Your task to perform on an android device: Open the phone app and click the voicemail tab. Image 0: 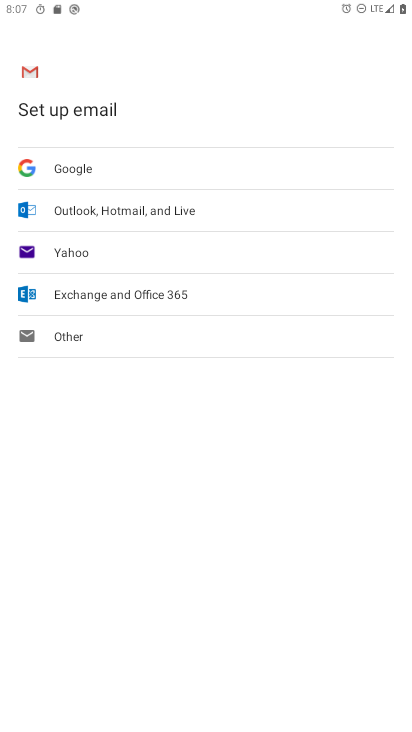
Step 0: press home button
Your task to perform on an android device: Open the phone app and click the voicemail tab. Image 1: 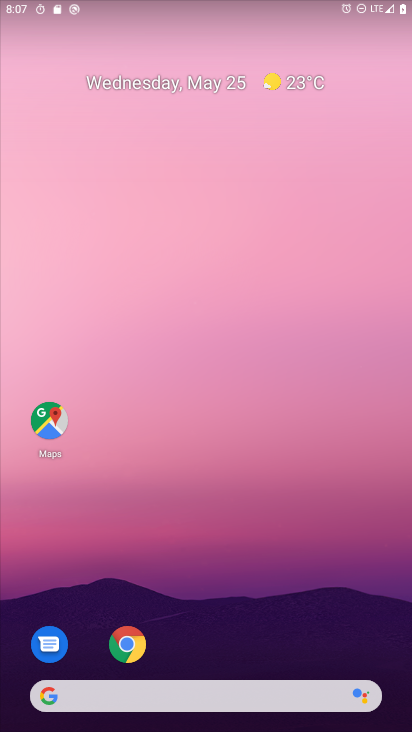
Step 1: drag from (326, 650) to (244, 65)
Your task to perform on an android device: Open the phone app and click the voicemail tab. Image 2: 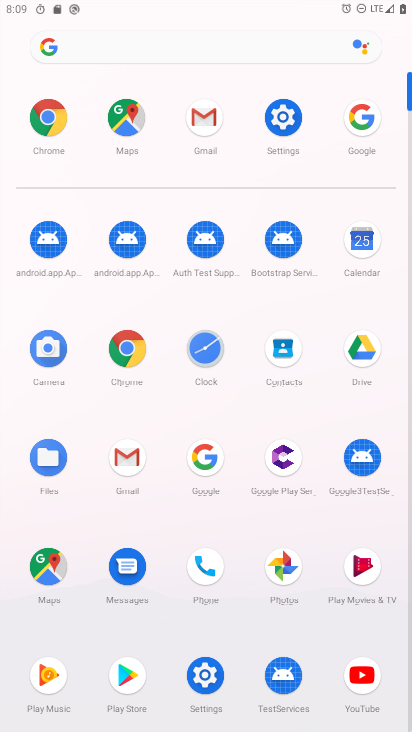
Step 2: click (208, 583)
Your task to perform on an android device: Open the phone app and click the voicemail tab. Image 3: 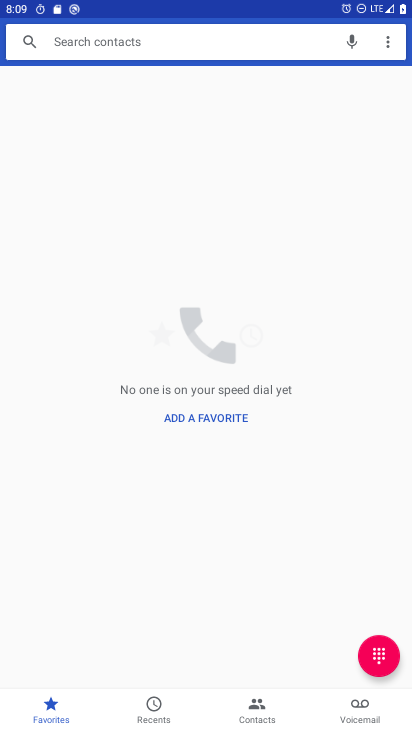
Step 3: click (362, 705)
Your task to perform on an android device: Open the phone app and click the voicemail tab. Image 4: 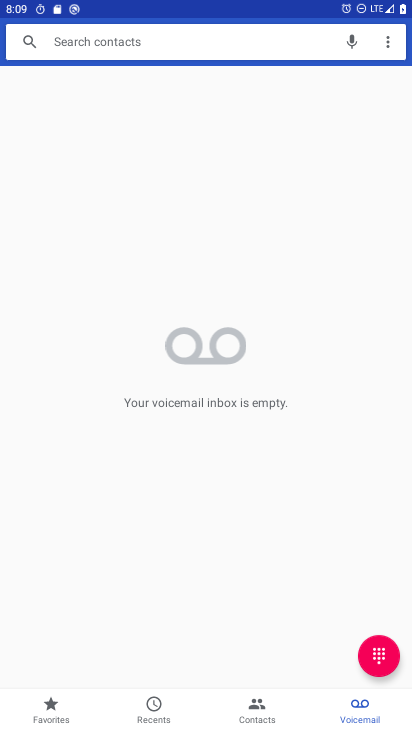
Step 4: task complete